Your task to perform on an android device: allow cookies in the chrome app Image 0: 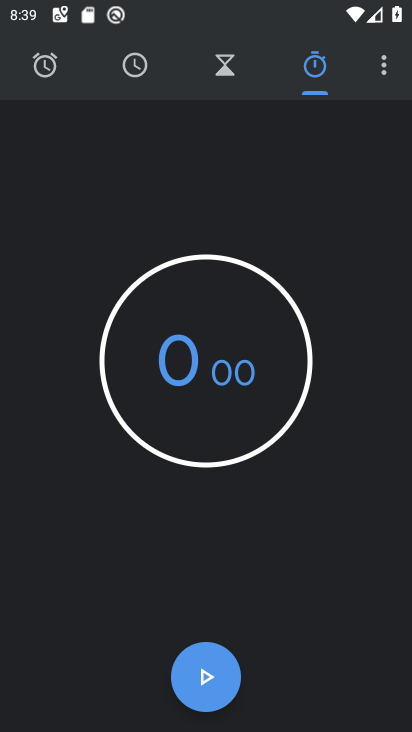
Step 0: press home button
Your task to perform on an android device: allow cookies in the chrome app Image 1: 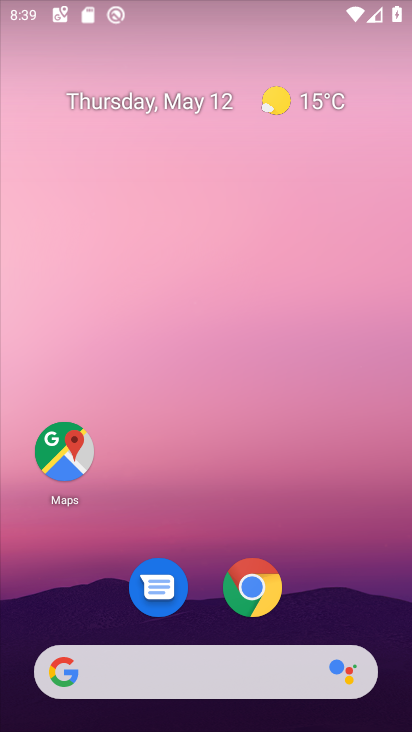
Step 1: drag from (387, 634) to (305, 163)
Your task to perform on an android device: allow cookies in the chrome app Image 2: 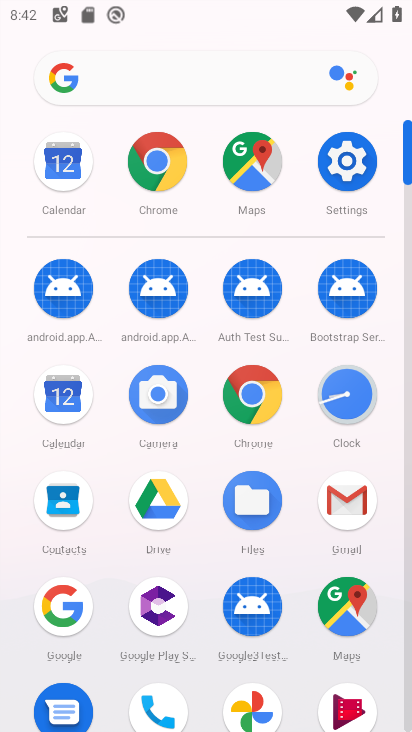
Step 2: click (249, 388)
Your task to perform on an android device: allow cookies in the chrome app Image 3: 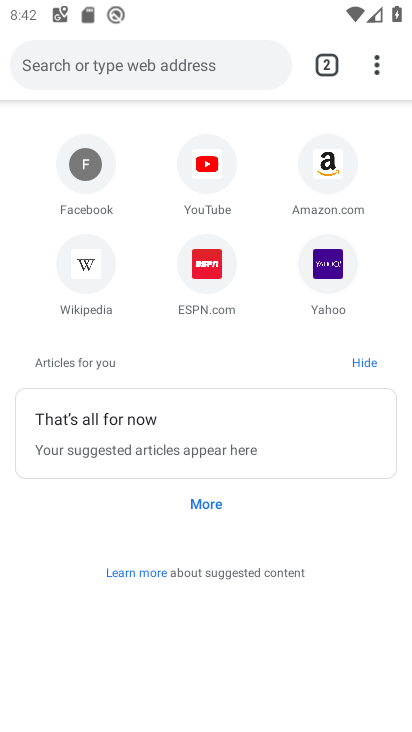
Step 3: click (376, 55)
Your task to perform on an android device: allow cookies in the chrome app Image 4: 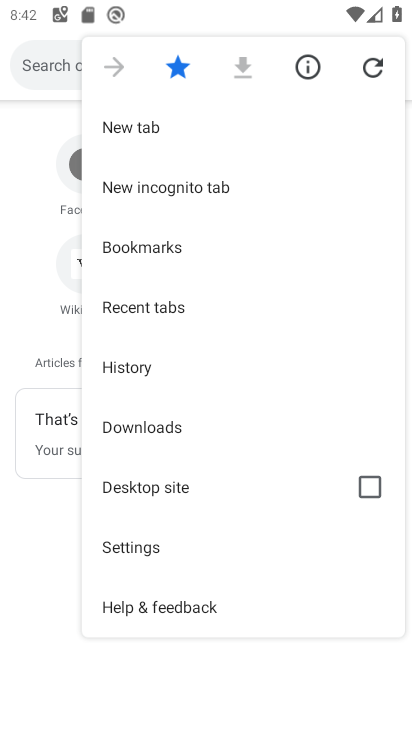
Step 4: click (147, 366)
Your task to perform on an android device: allow cookies in the chrome app Image 5: 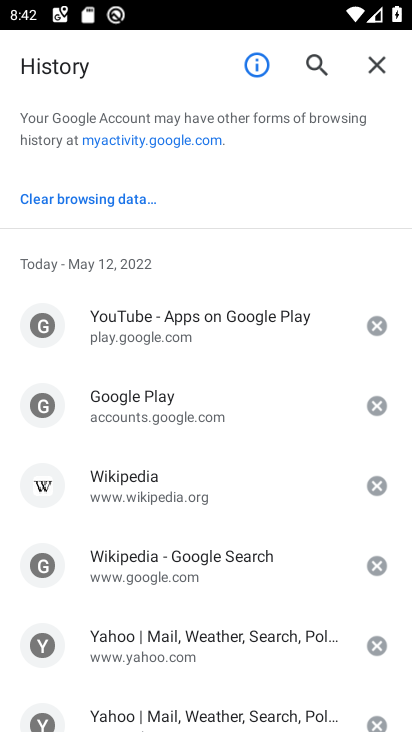
Step 5: click (142, 192)
Your task to perform on an android device: allow cookies in the chrome app Image 6: 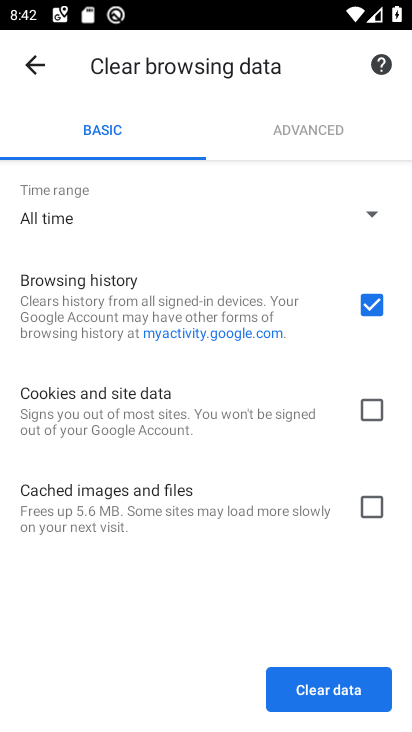
Step 6: click (365, 389)
Your task to perform on an android device: allow cookies in the chrome app Image 7: 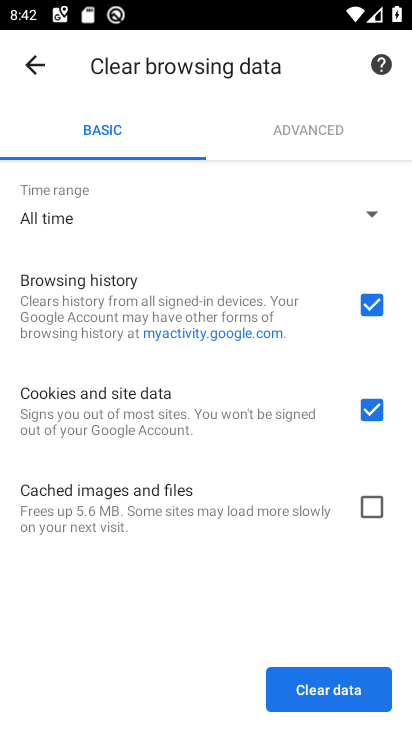
Step 7: task complete